Your task to perform on an android device: remove spam from my inbox in the gmail app Image 0: 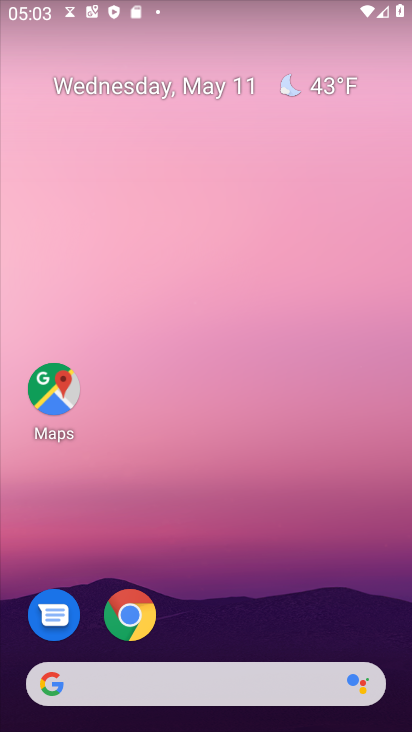
Step 0: drag from (166, 547) to (195, 75)
Your task to perform on an android device: remove spam from my inbox in the gmail app Image 1: 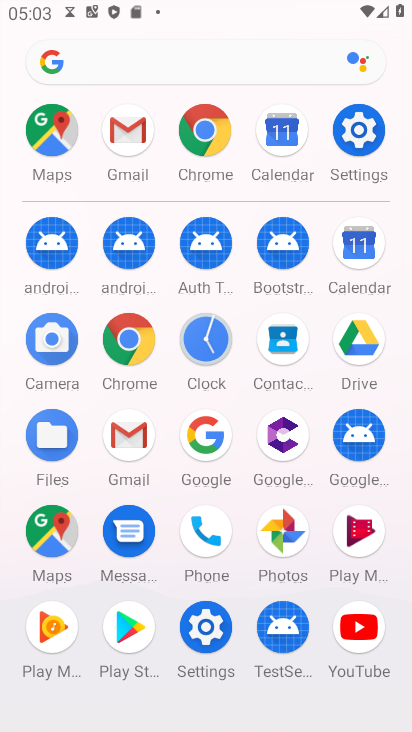
Step 1: drag from (9, 572) to (26, 253)
Your task to perform on an android device: remove spam from my inbox in the gmail app Image 2: 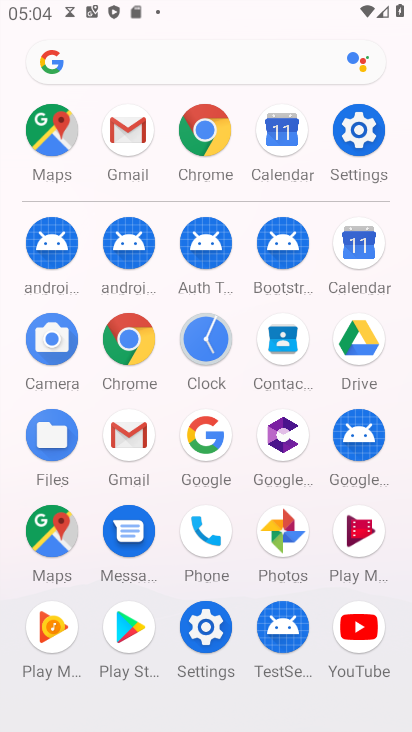
Step 2: drag from (9, 437) to (15, 215)
Your task to perform on an android device: remove spam from my inbox in the gmail app Image 3: 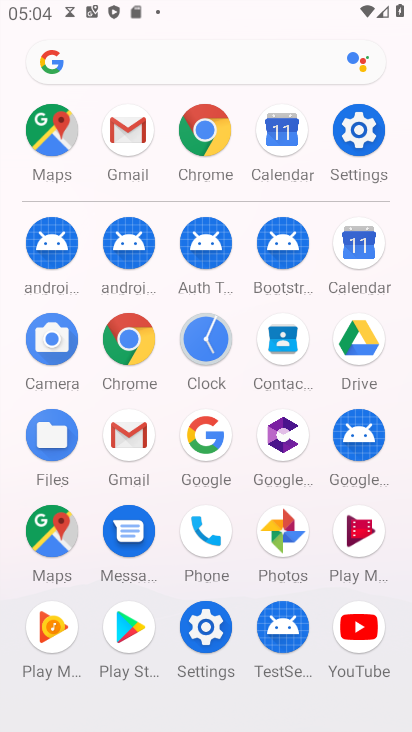
Step 3: click (127, 431)
Your task to perform on an android device: remove spam from my inbox in the gmail app Image 4: 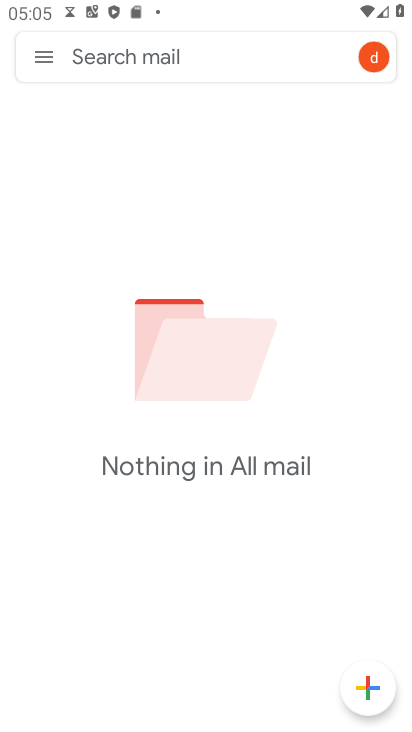
Step 4: click (43, 53)
Your task to perform on an android device: remove spam from my inbox in the gmail app Image 5: 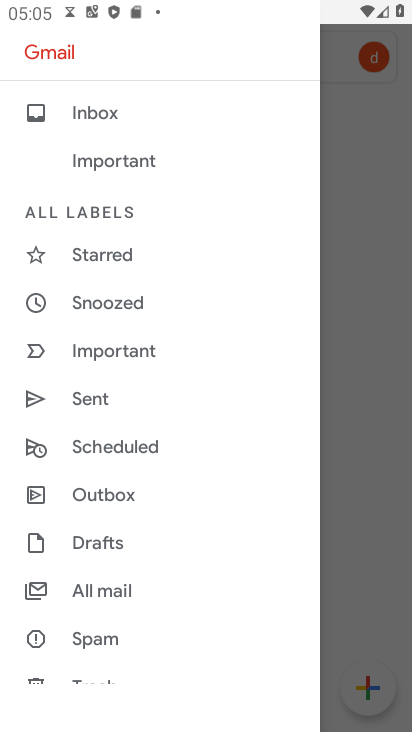
Step 5: drag from (144, 477) to (180, 152)
Your task to perform on an android device: remove spam from my inbox in the gmail app Image 6: 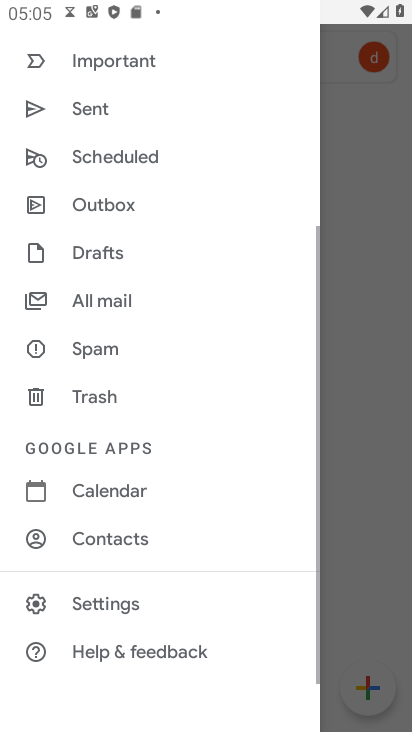
Step 6: drag from (200, 498) to (204, 241)
Your task to perform on an android device: remove spam from my inbox in the gmail app Image 7: 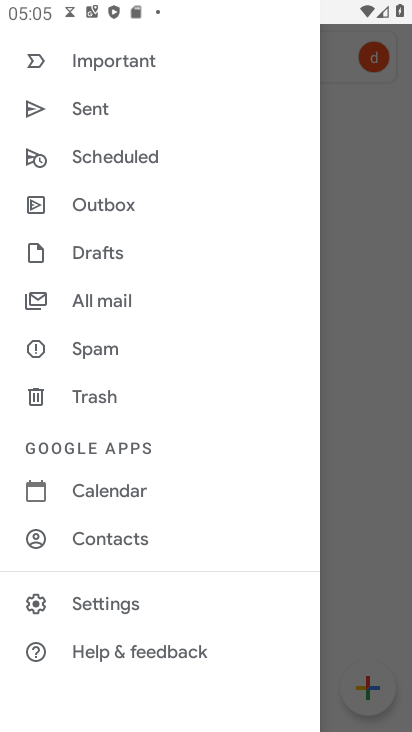
Step 7: click (113, 351)
Your task to perform on an android device: remove spam from my inbox in the gmail app Image 8: 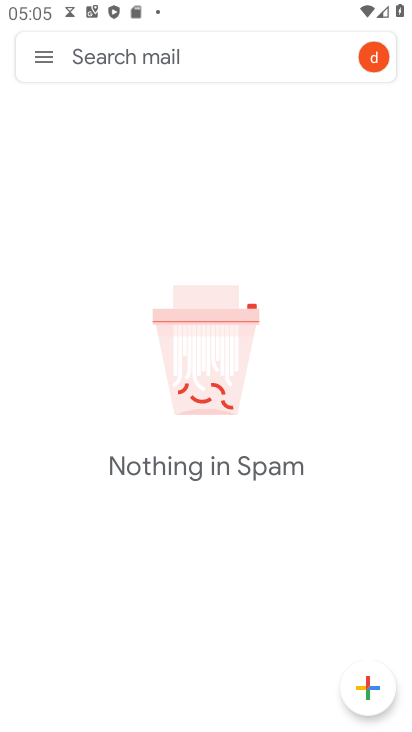
Step 8: task complete